Your task to perform on an android device: turn off notifications settings in the gmail app Image 0: 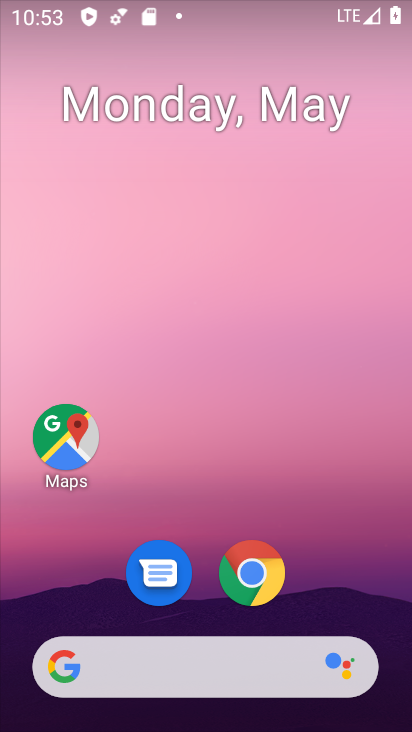
Step 0: drag from (212, 638) to (353, 54)
Your task to perform on an android device: turn off notifications settings in the gmail app Image 1: 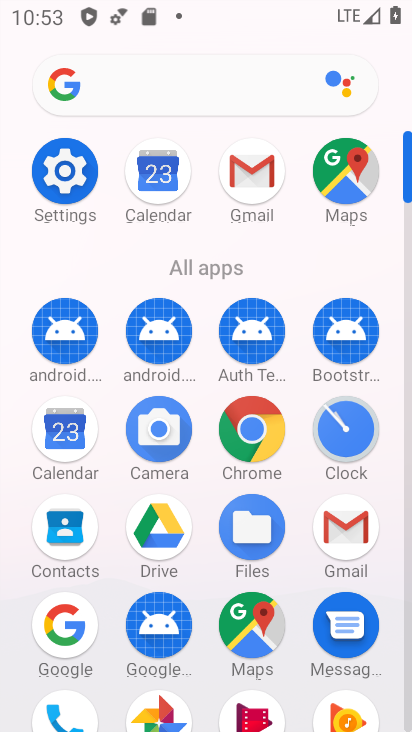
Step 1: click (243, 183)
Your task to perform on an android device: turn off notifications settings in the gmail app Image 2: 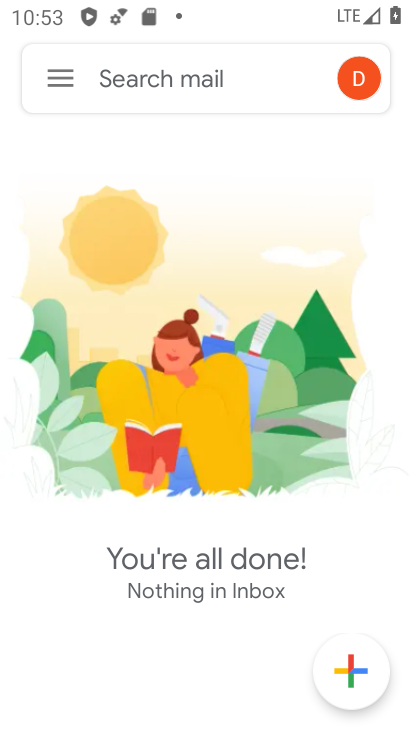
Step 2: click (57, 75)
Your task to perform on an android device: turn off notifications settings in the gmail app Image 3: 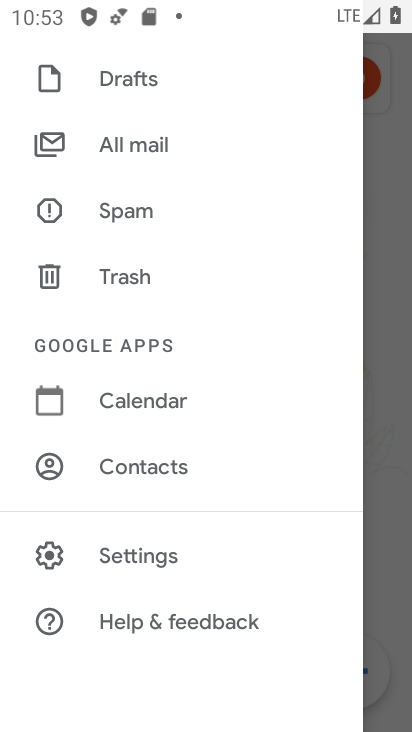
Step 3: click (135, 559)
Your task to perform on an android device: turn off notifications settings in the gmail app Image 4: 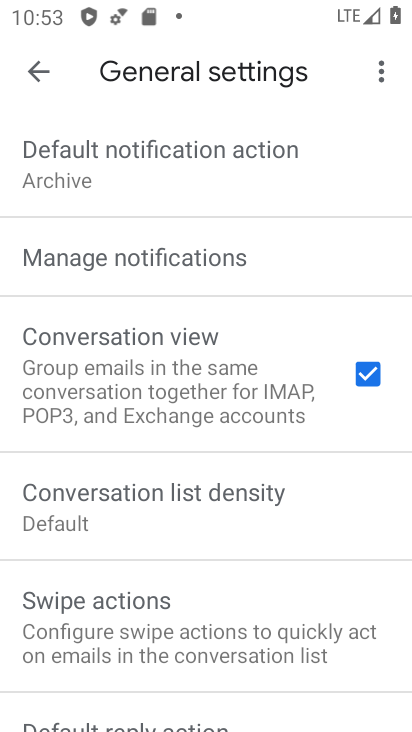
Step 4: click (176, 262)
Your task to perform on an android device: turn off notifications settings in the gmail app Image 5: 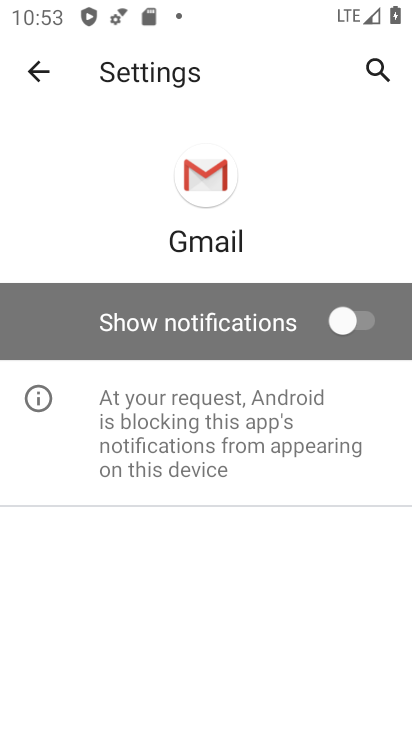
Step 5: task complete